Your task to perform on an android device: install app "VLC for Android" Image 0: 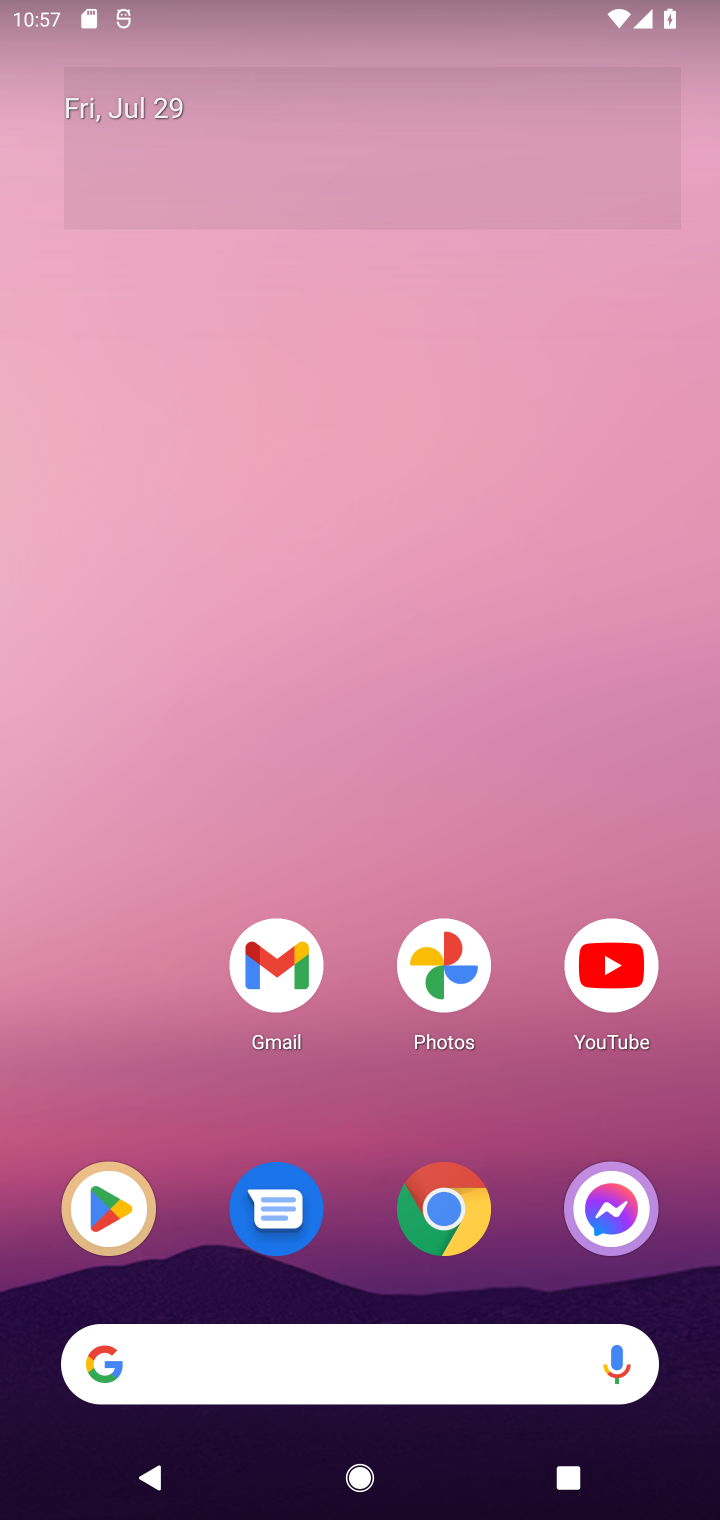
Step 0: drag from (519, 1061) to (526, 190)
Your task to perform on an android device: install app "VLC for Android" Image 1: 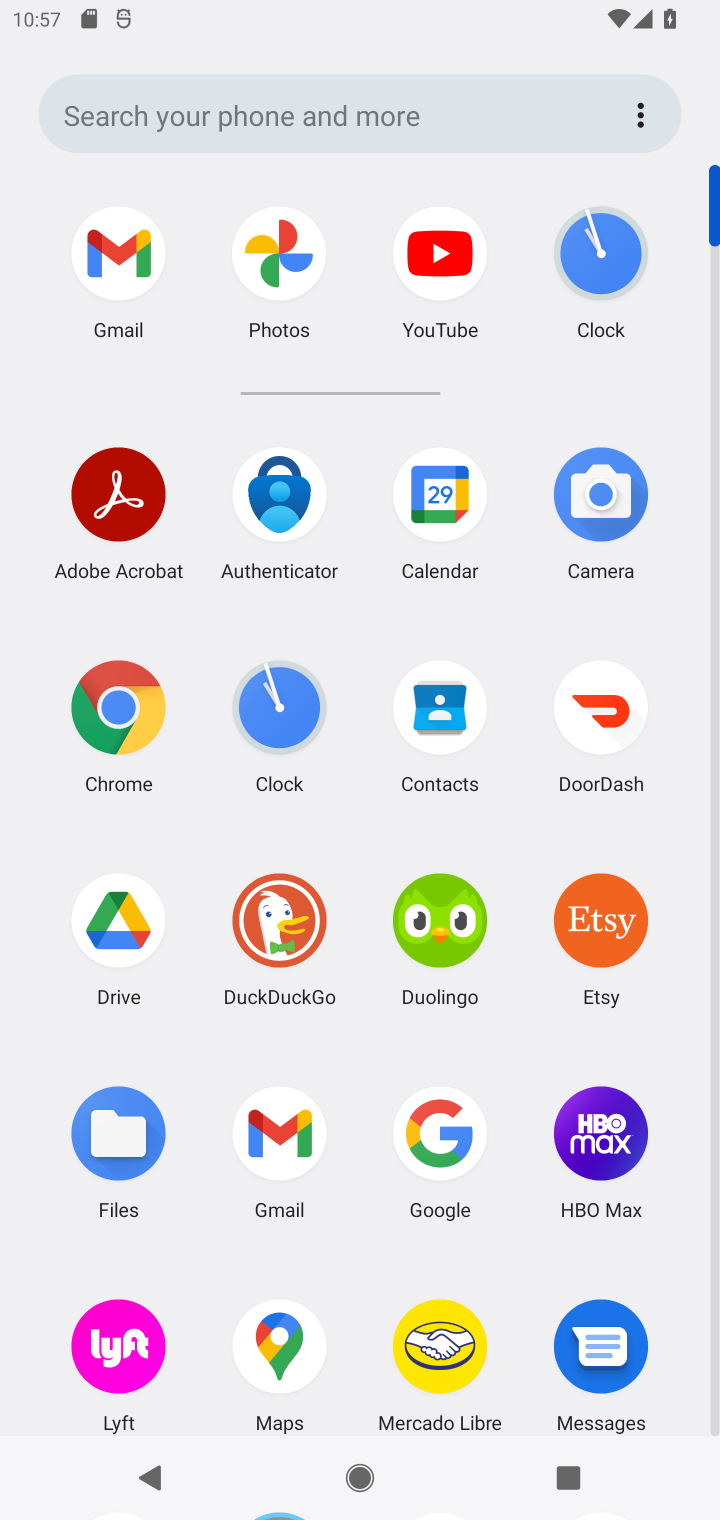
Step 1: drag from (505, 1213) to (558, 298)
Your task to perform on an android device: install app "VLC for Android" Image 2: 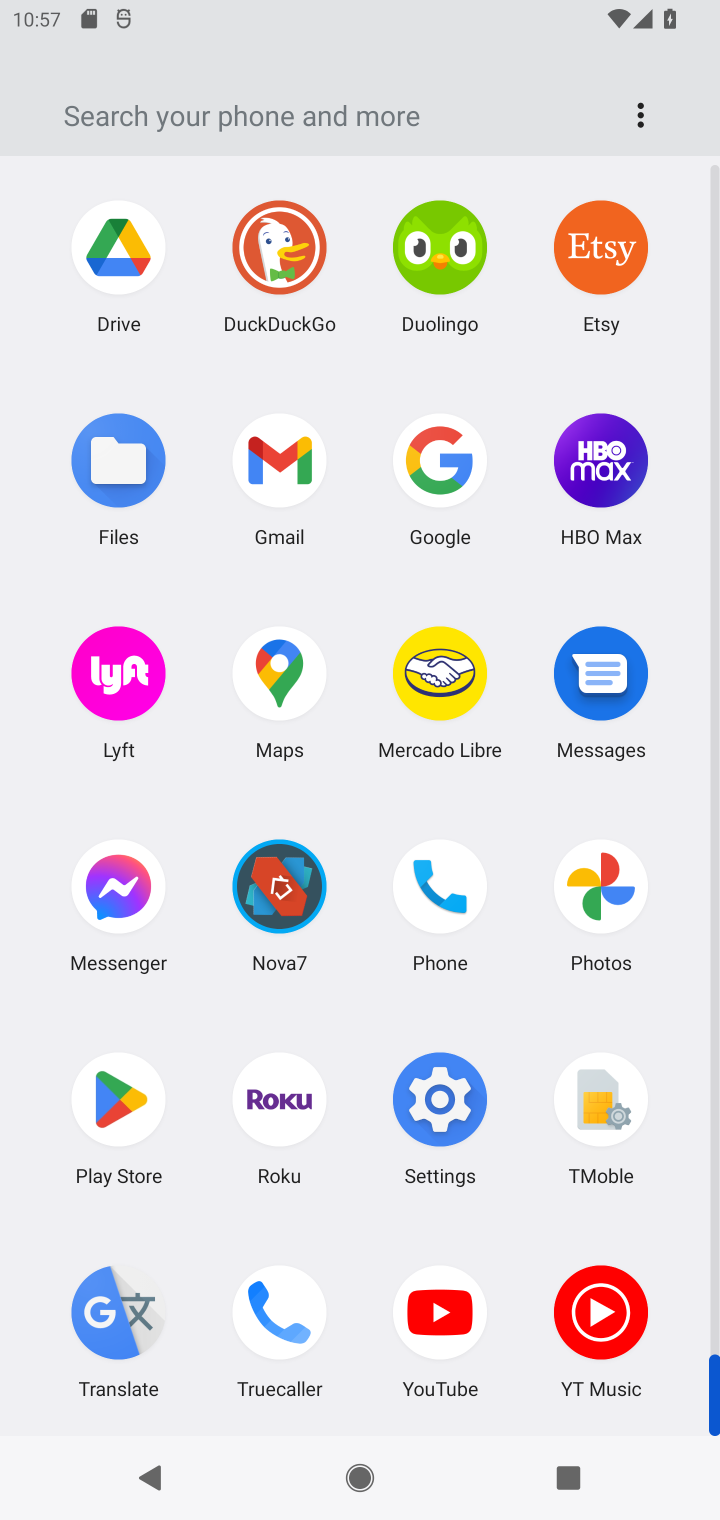
Step 2: drag from (519, 1166) to (495, 473)
Your task to perform on an android device: install app "VLC for Android" Image 3: 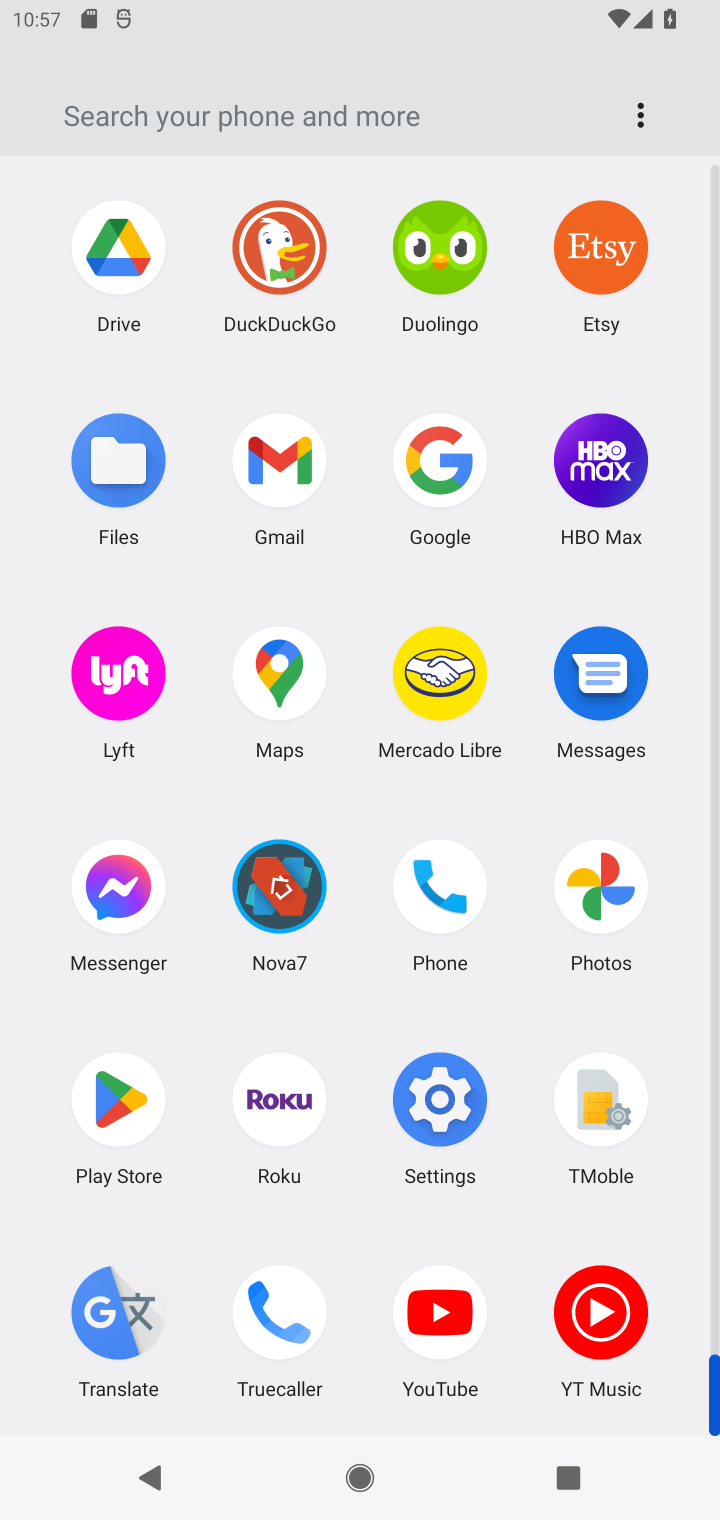
Step 3: click (101, 1129)
Your task to perform on an android device: install app "VLC for Android" Image 4: 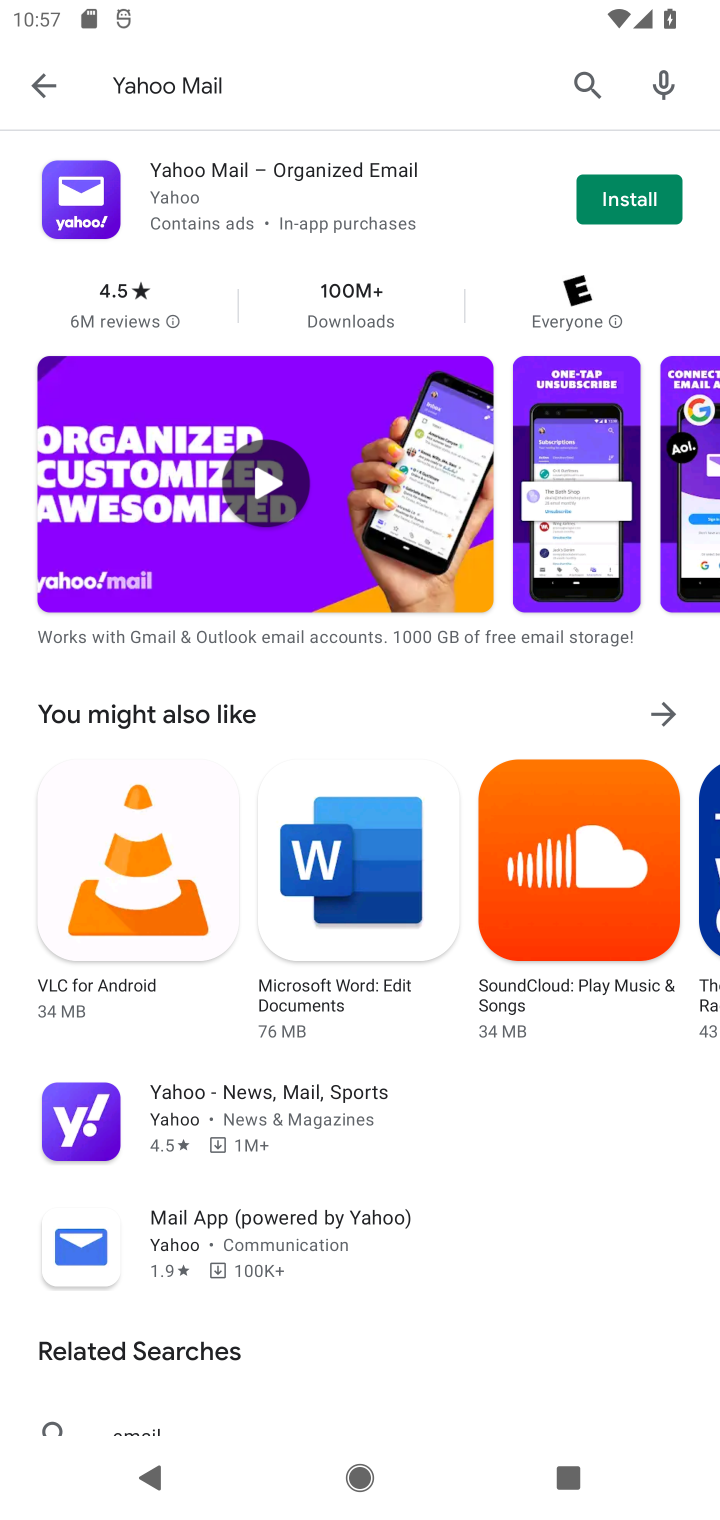
Step 4: click (507, 101)
Your task to perform on an android device: install app "VLC for Android" Image 5: 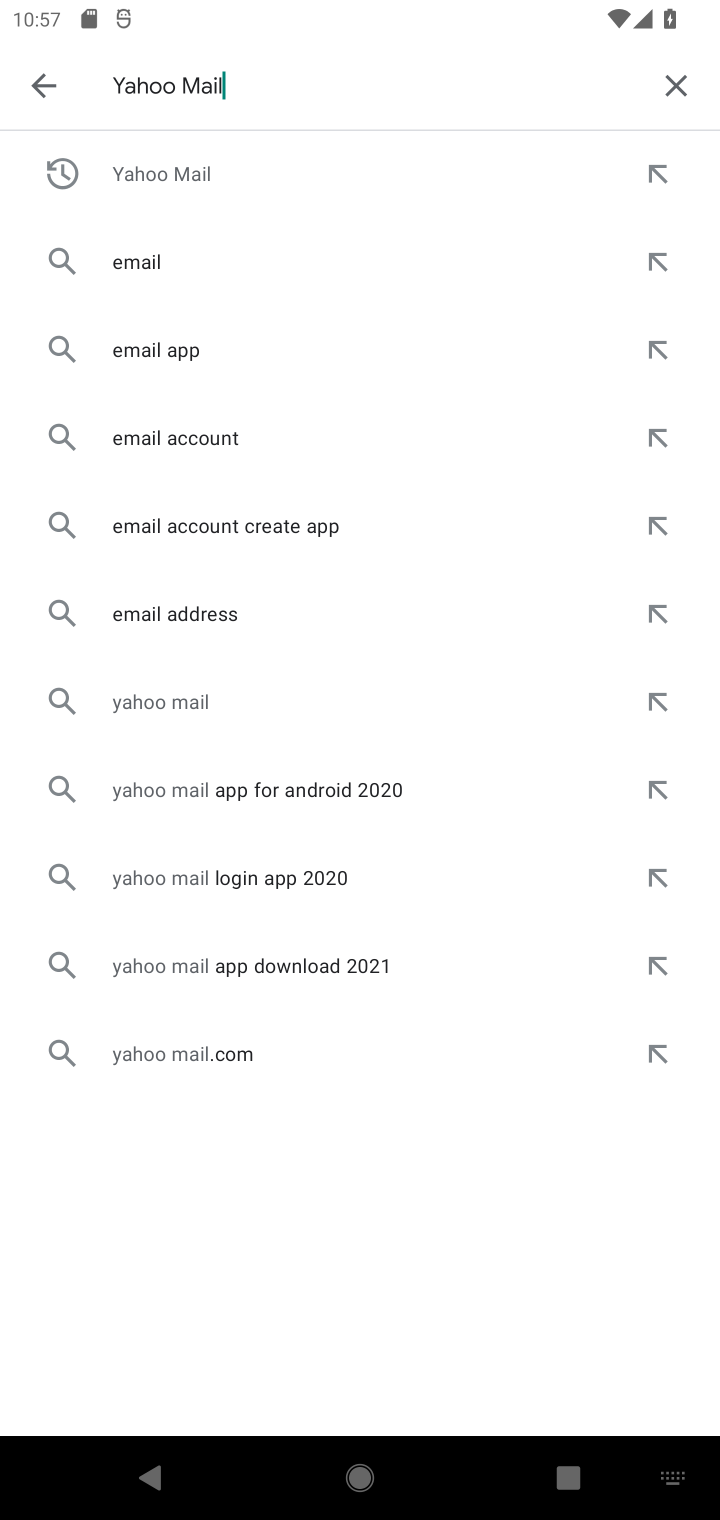
Step 5: click (687, 74)
Your task to perform on an android device: install app "VLC for Android" Image 6: 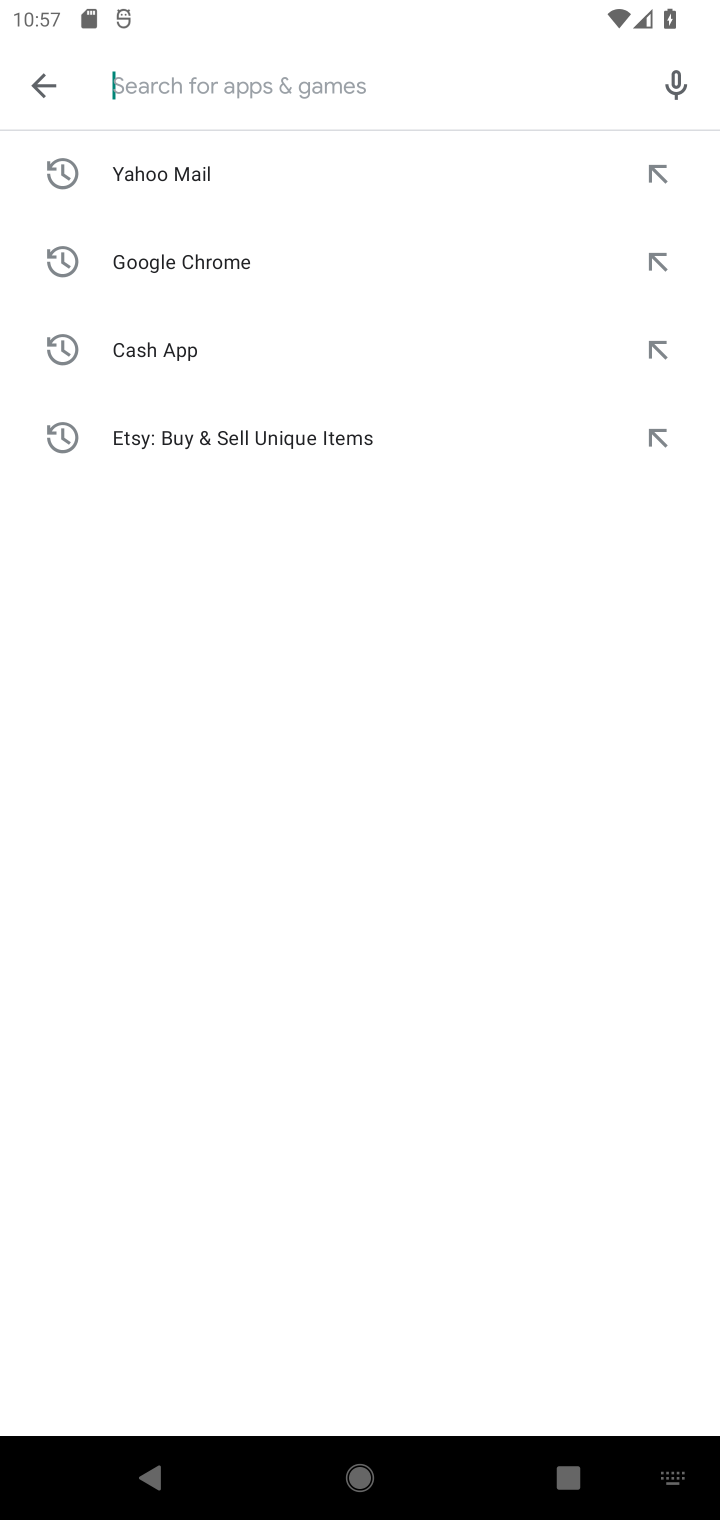
Step 6: type "VLC for Android"
Your task to perform on an android device: install app "VLC for Android" Image 7: 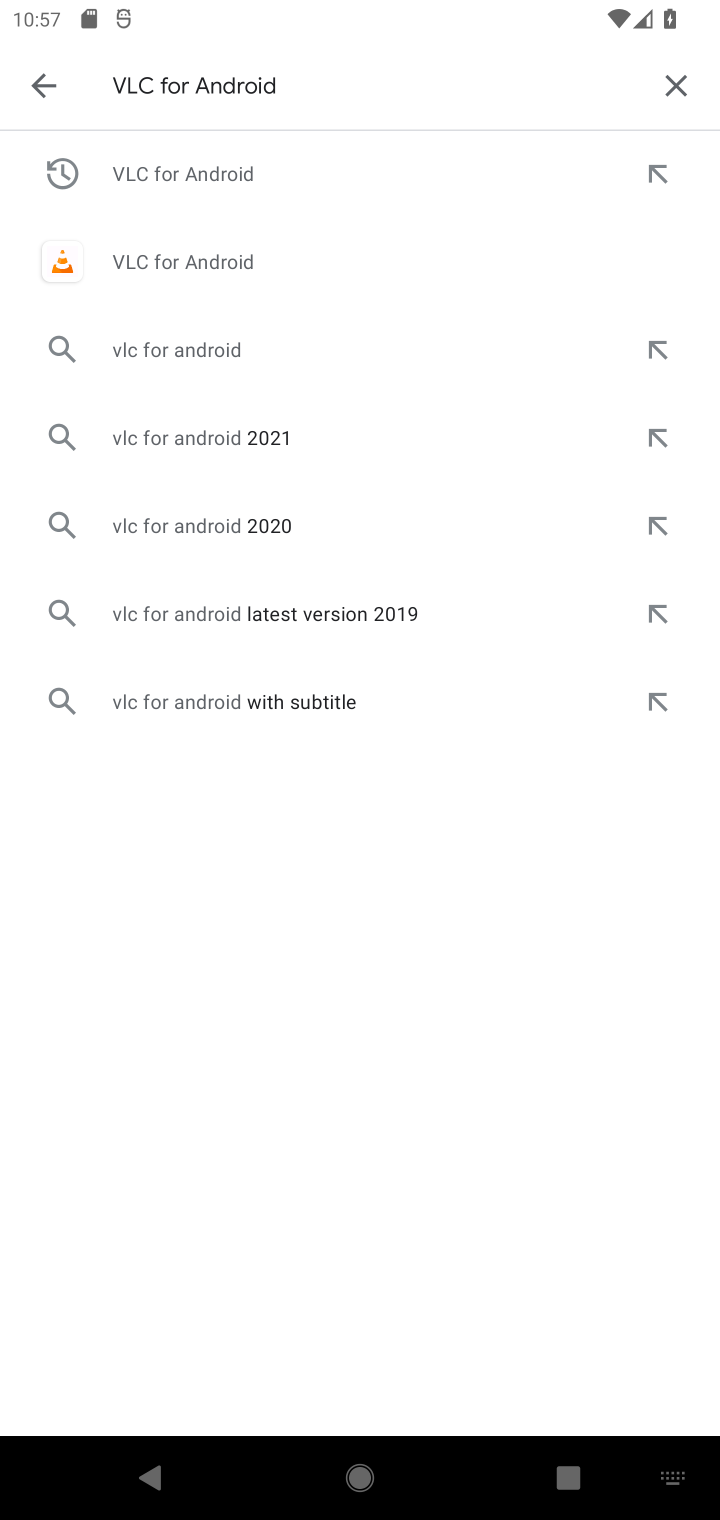
Step 7: press enter
Your task to perform on an android device: install app "VLC for Android" Image 8: 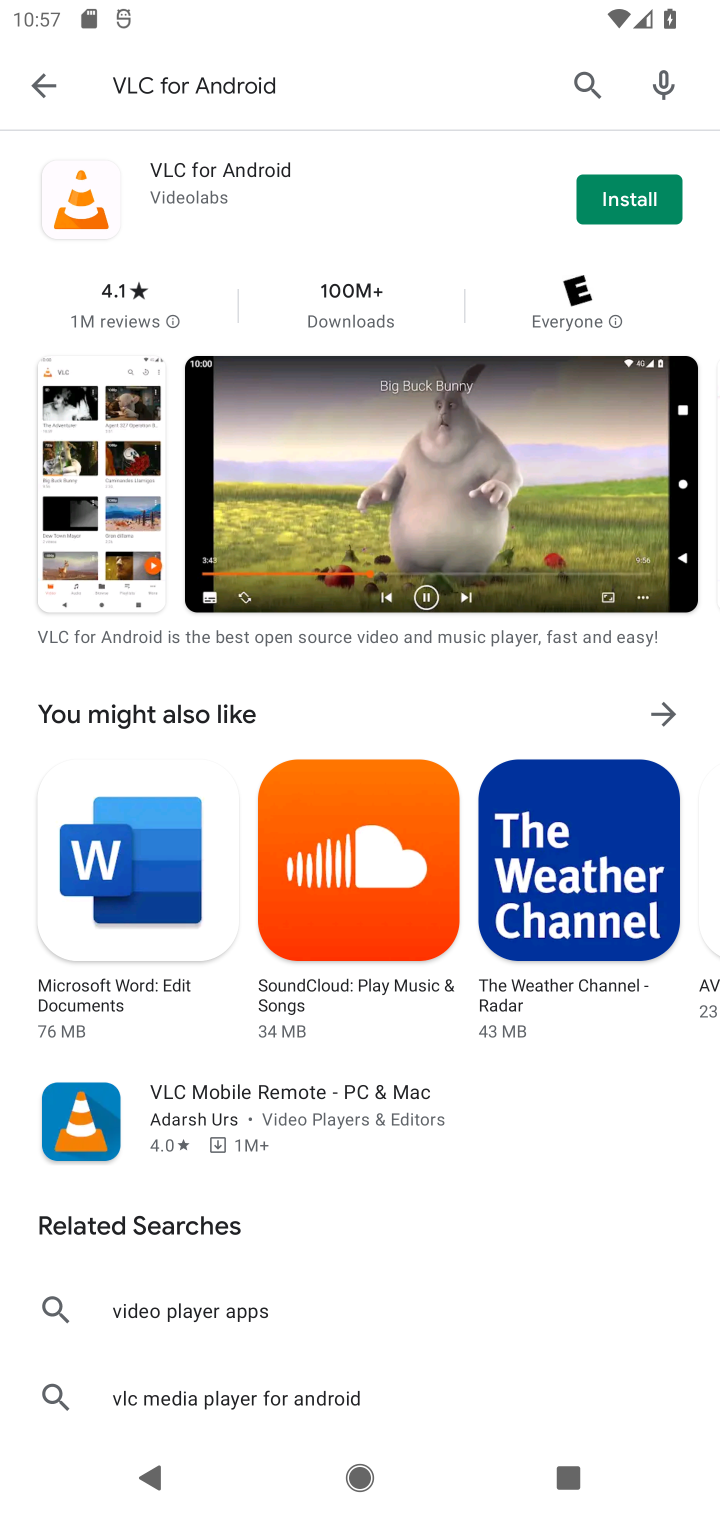
Step 8: click (633, 195)
Your task to perform on an android device: install app "VLC for Android" Image 9: 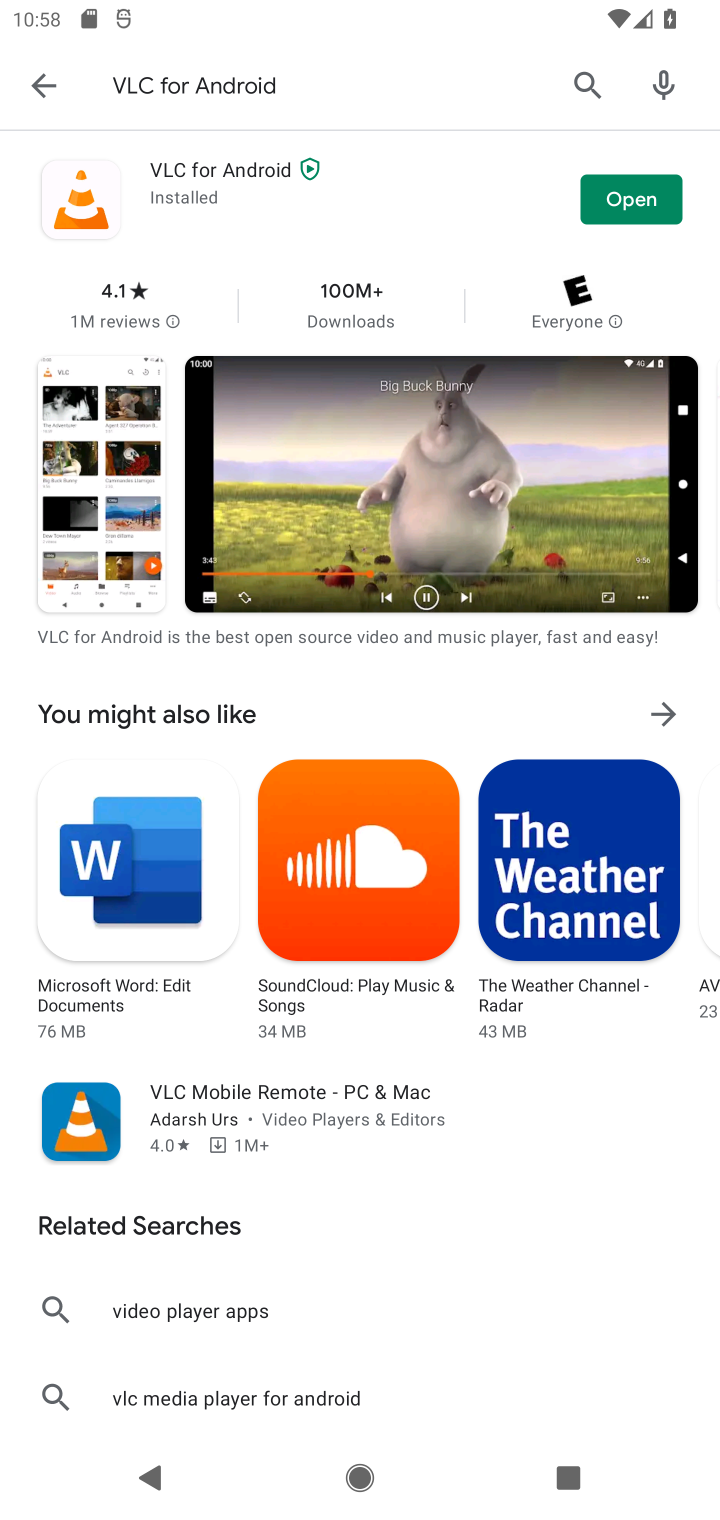
Step 9: task complete